Your task to perform on an android device: Go to Google Image 0: 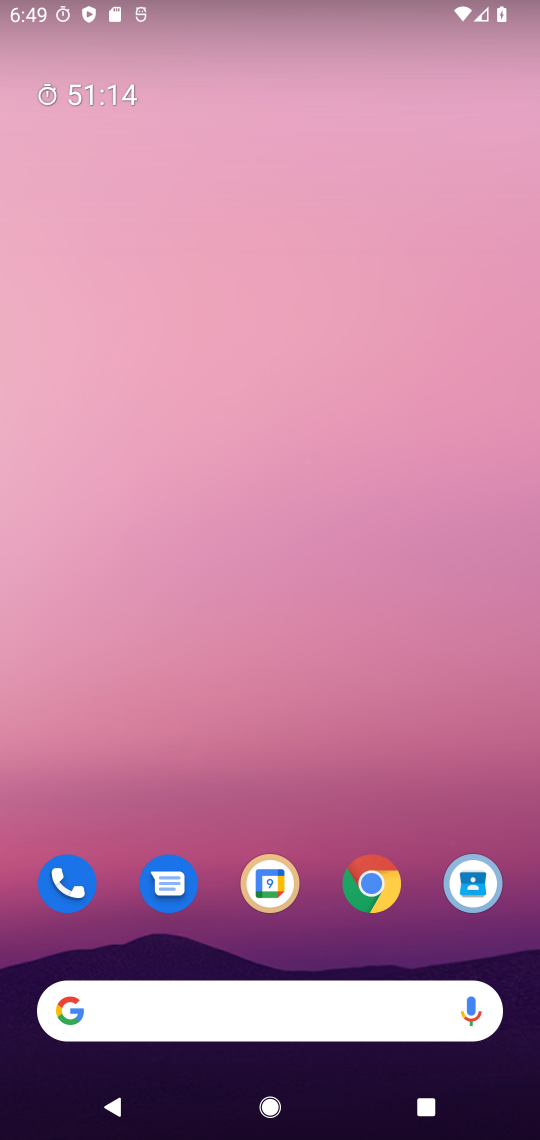
Step 0: drag from (271, 790) to (284, 89)
Your task to perform on an android device: Go to Google Image 1: 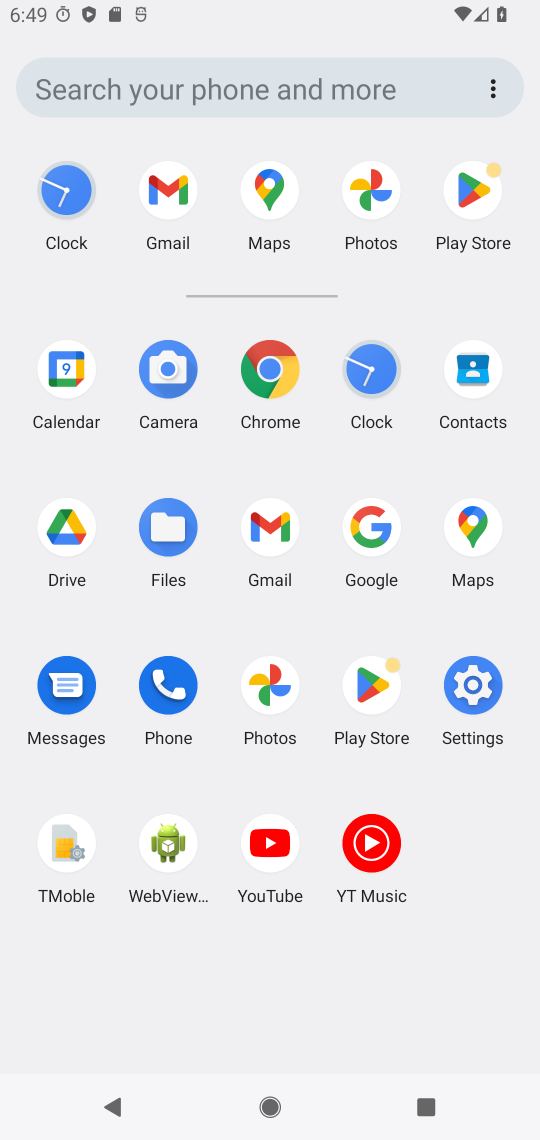
Step 1: click (396, 523)
Your task to perform on an android device: Go to Google Image 2: 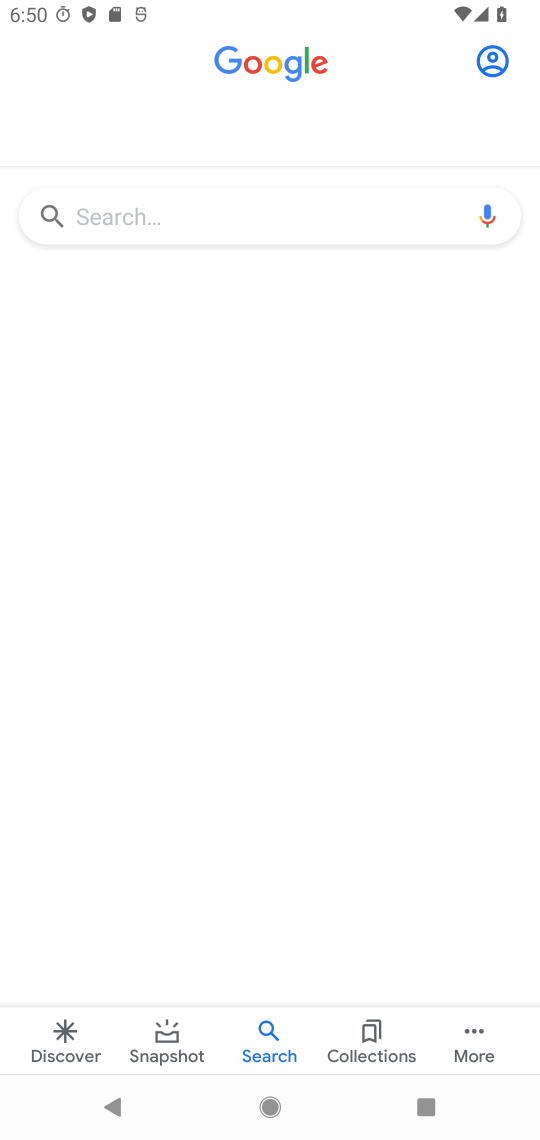
Step 2: task complete